Your task to perform on an android device: clear history in the chrome app Image 0: 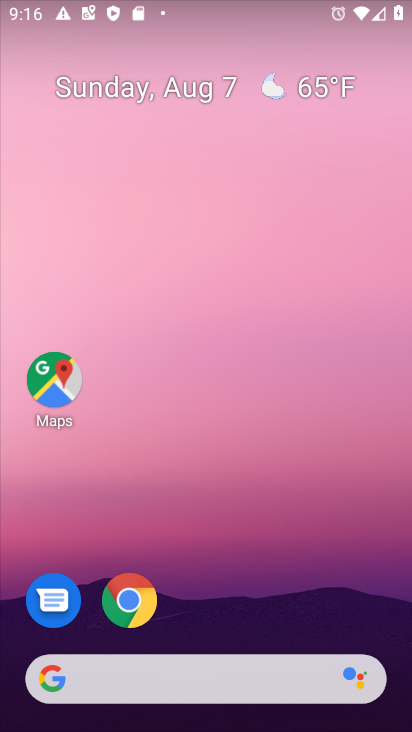
Step 0: click (124, 606)
Your task to perform on an android device: clear history in the chrome app Image 1: 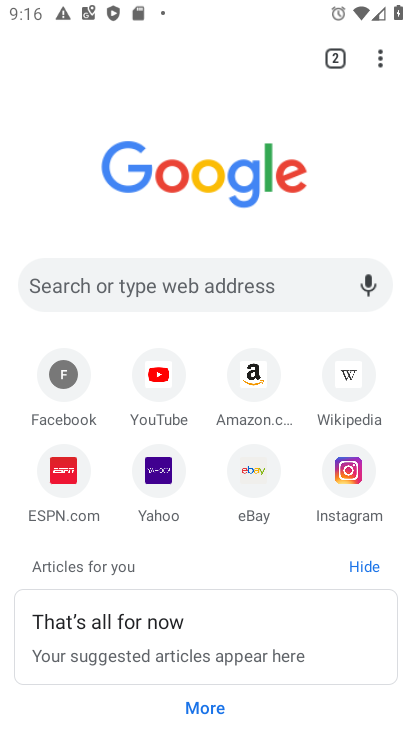
Step 1: click (381, 66)
Your task to perform on an android device: clear history in the chrome app Image 2: 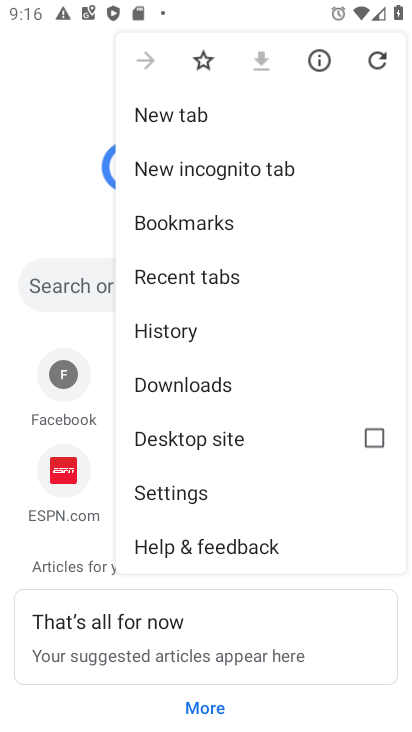
Step 2: click (210, 328)
Your task to perform on an android device: clear history in the chrome app Image 3: 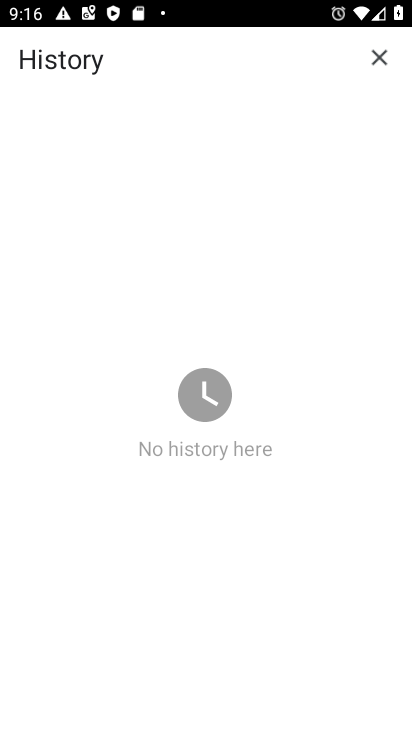
Step 3: task complete